Your task to perform on an android device: Go to calendar. Show me events next week Image 0: 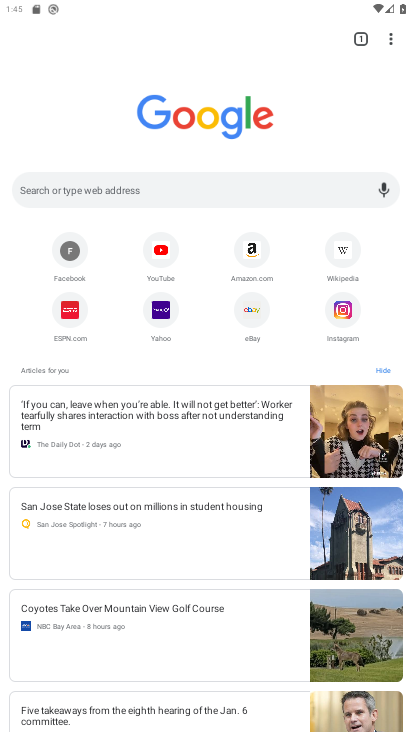
Step 0: press home button
Your task to perform on an android device: Go to calendar. Show me events next week Image 1: 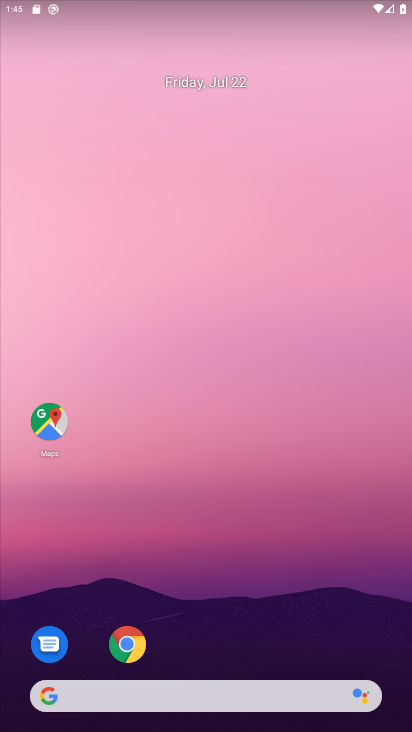
Step 1: drag from (202, 648) to (247, 102)
Your task to perform on an android device: Go to calendar. Show me events next week Image 2: 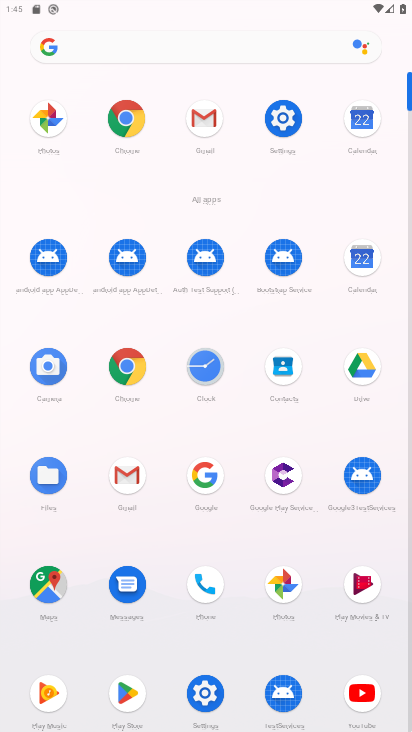
Step 2: click (361, 117)
Your task to perform on an android device: Go to calendar. Show me events next week Image 3: 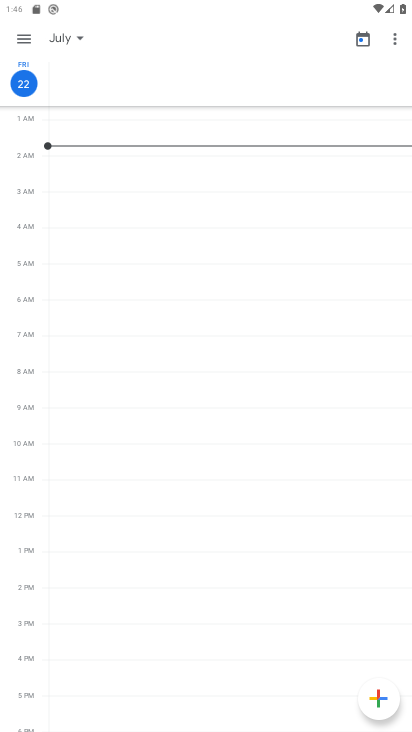
Step 3: click (20, 40)
Your task to perform on an android device: Go to calendar. Show me events next week Image 4: 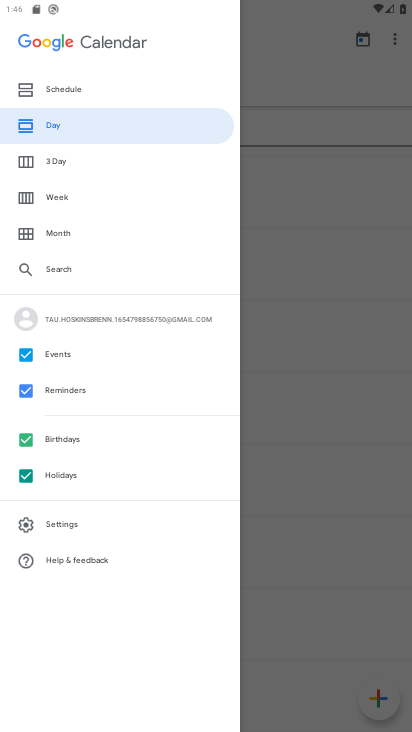
Step 4: click (66, 84)
Your task to perform on an android device: Go to calendar. Show me events next week Image 5: 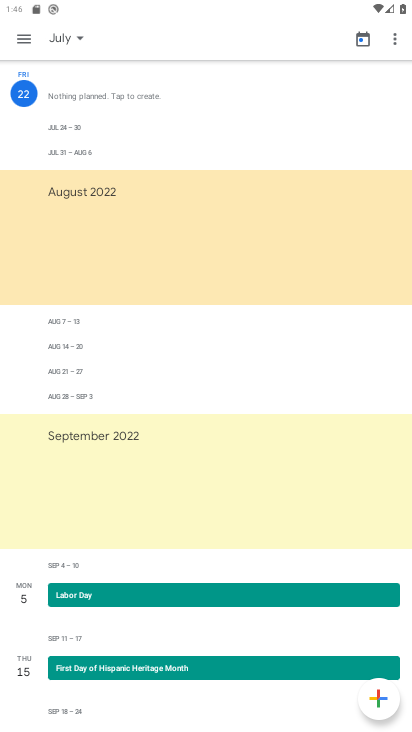
Step 5: click (67, 40)
Your task to perform on an android device: Go to calendar. Show me events next week Image 6: 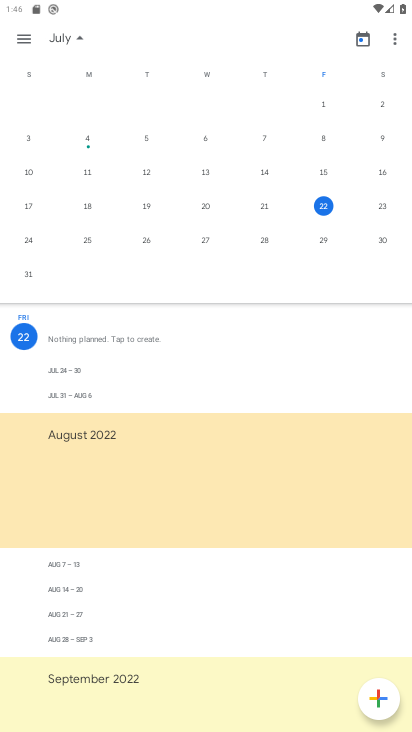
Step 6: click (32, 245)
Your task to perform on an android device: Go to calendar. Show me events next week Image 7: 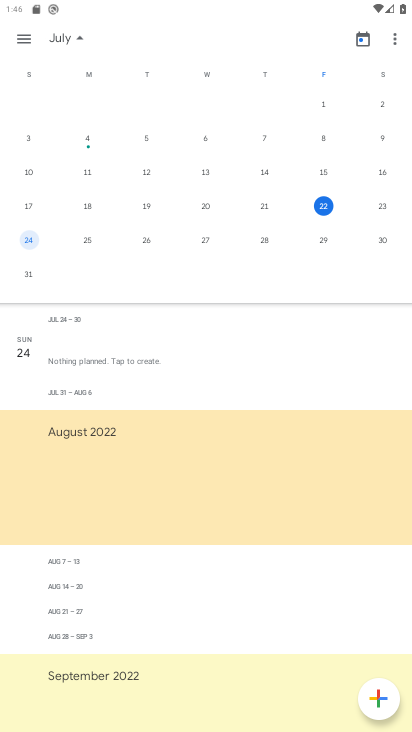
Step 7: click (77, 245)
Your task to perform on an android device: Go to calendar. Show me events next week Image 8: 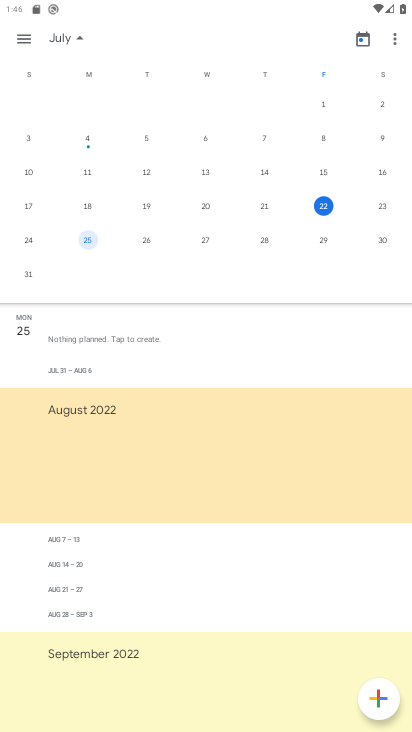
Step 8: click (148, 242)
Your task to perform on an android device: Go to calendar. Show me events next week Image 9: 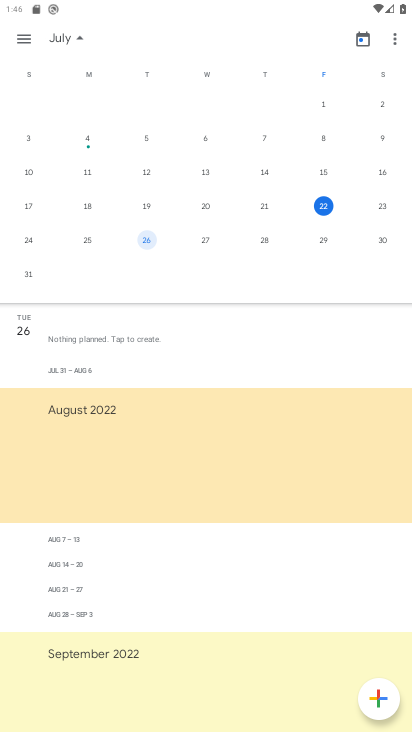
Step 9: click (207, 242)
Your task to perform on an android device: Go to calendar. Show me events next week Image 10: 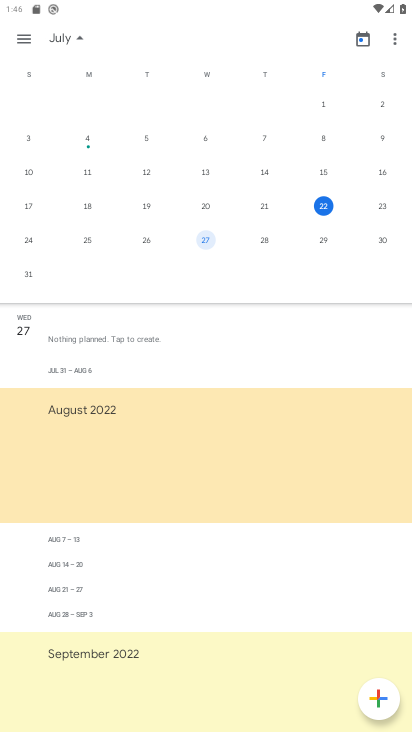
Step 10: click (265, 242)
Your task to perform on an android device: Go to calendar. Show me events next week Image 11: 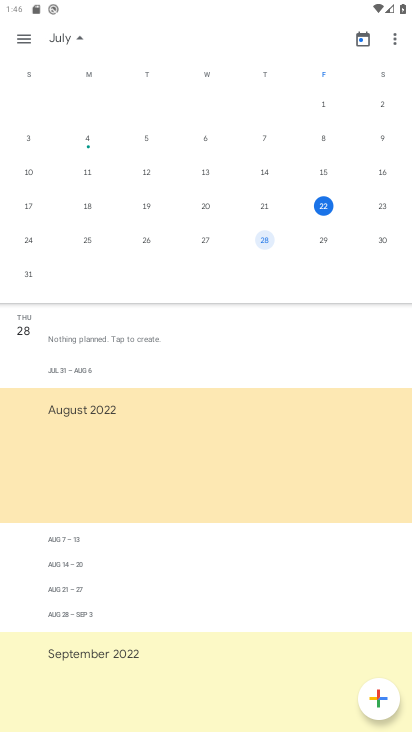
Step 11: click (324, 242)
Your task to perform on an android device: Go to calendar. Show me events next week Image 12: 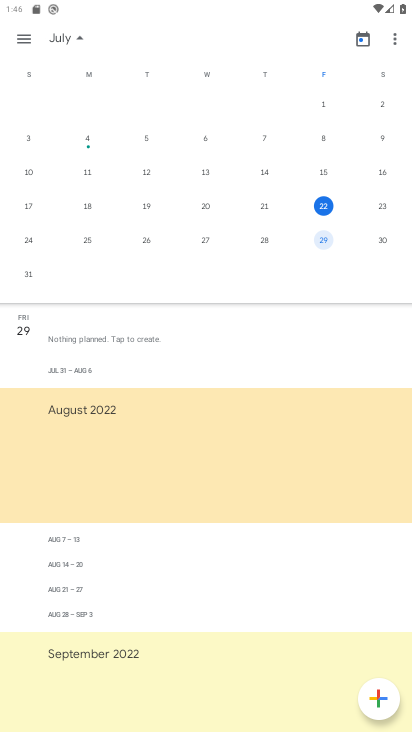
Step 12: click (385, 235)
Your task to perform on an android device: Go to calendar. Show me events next week Image 13: 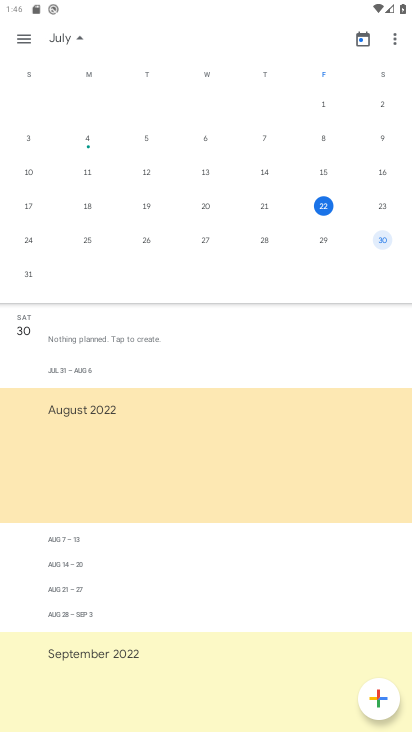
Step 13: task complete